Your task to perform on an android device: What's the weather? Image 0: 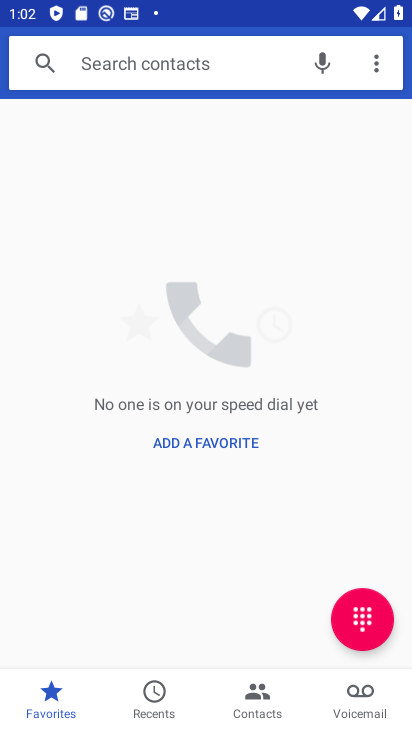
Step 0: press home button
Your task to perform on an android device: What's the weather? Image 1: 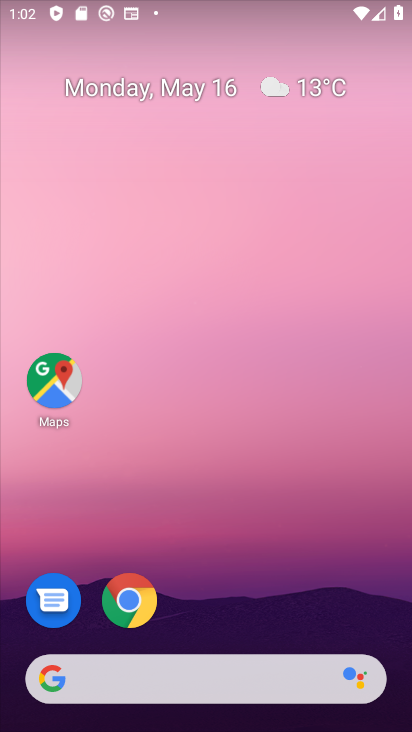
Step 1: click (148, 614)
Your task to perform on an android device: What's the weather? Image 2: 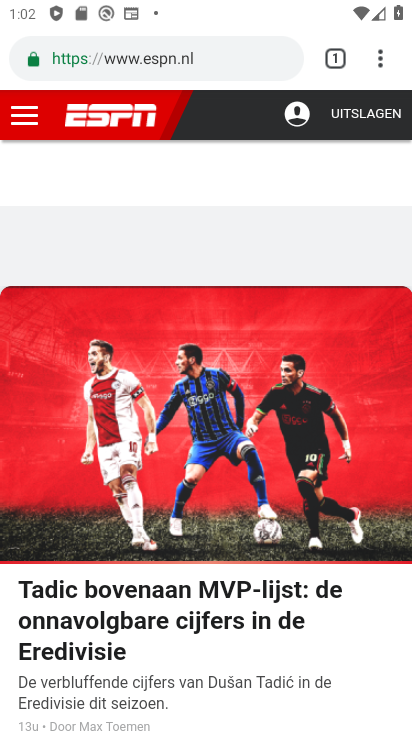
Step 2: click (335, 64)
Your task to perform on an android device: What's the weather? Image 3: 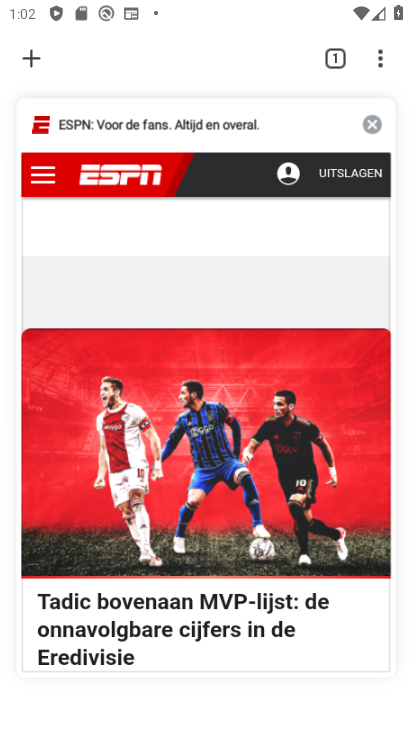
Step 3: click (32, 54)
Your task to perform on an android device: What's the weather? Image 4: 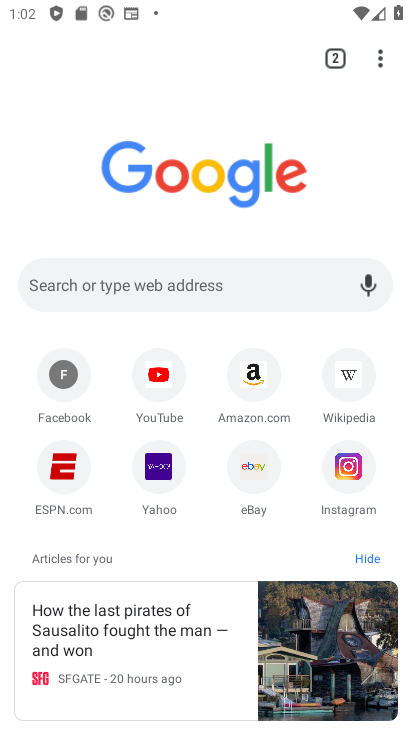
Step 4: click (88, 283)
Your task to perform on an android device: What's the weather? Image 5: 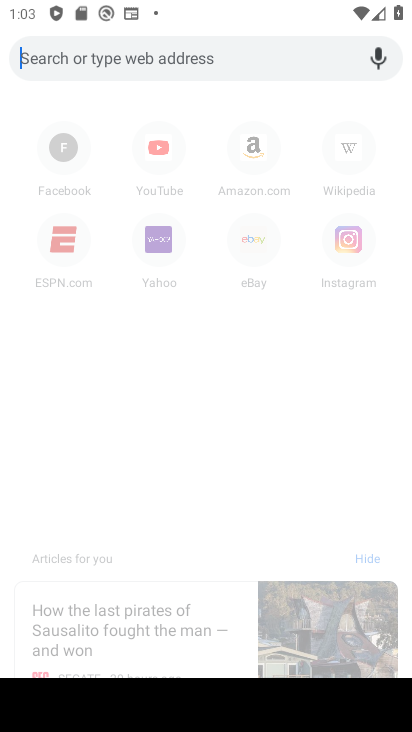
Step 5: type "what's the weather"
Your task to perform on an android device: What's the weather? Image 6: 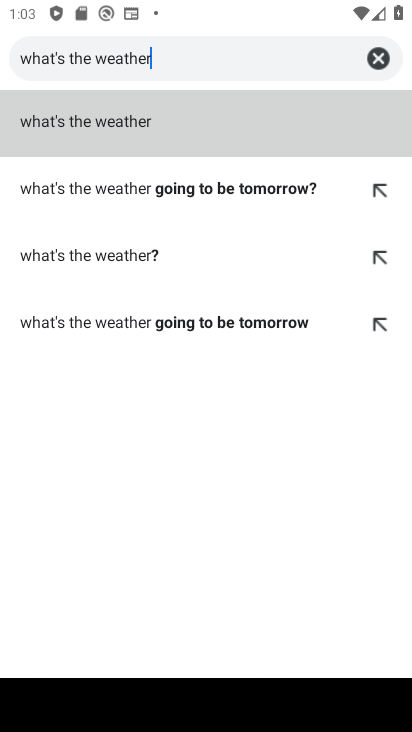
Step 6: click (92, 118)
Your task to perform on an android device: What's the weather? Image 7: 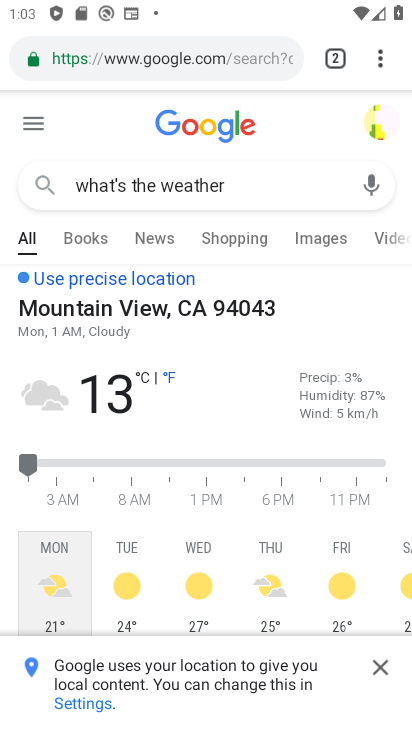
Step 7: task complete